Your task to perform on an android device: Go to display settings Image 0: 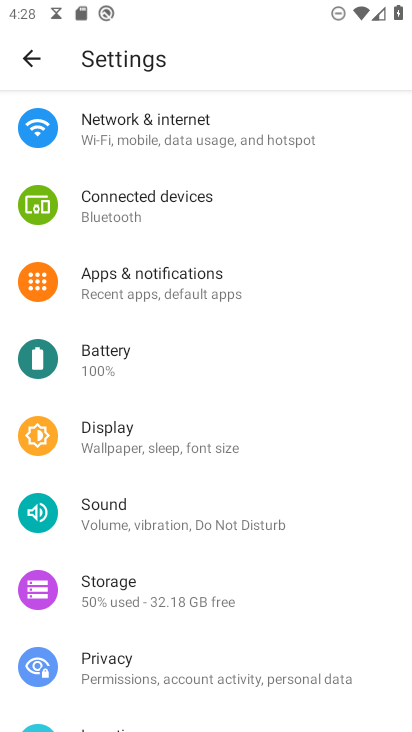
Step 0: click (229, 451)
Your task to perform on an android device: Go to display settings Image 1: 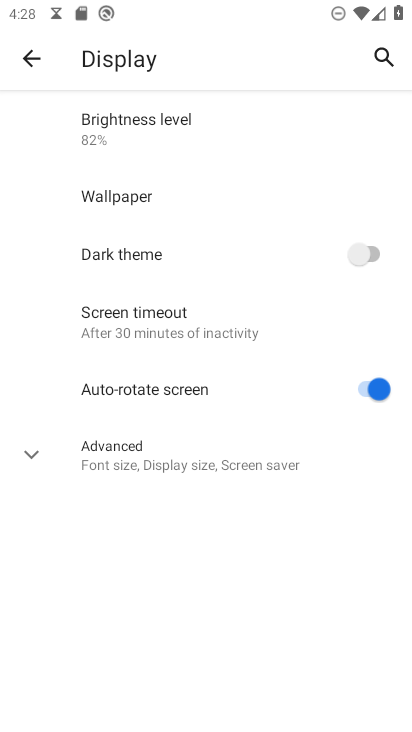
Step 1: task complete